Your task to perform on an android device: open chrome and create a bookmark for the current page Image 0: 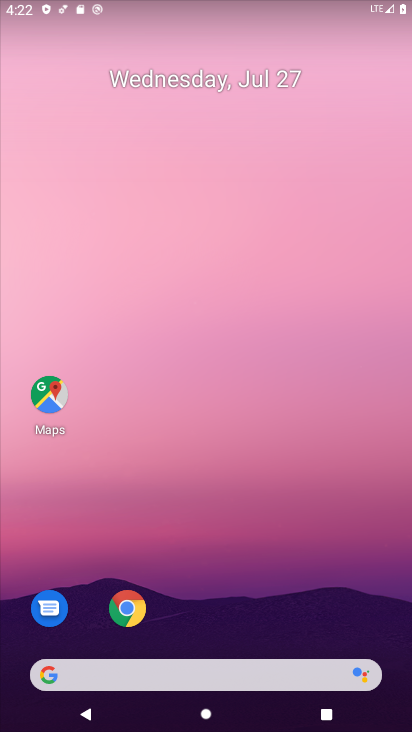
Step 0: drag from (338, 589) to (278, 188)
Your task to perform on an android device: open chrome and create a bookmark for the current page Image 1: 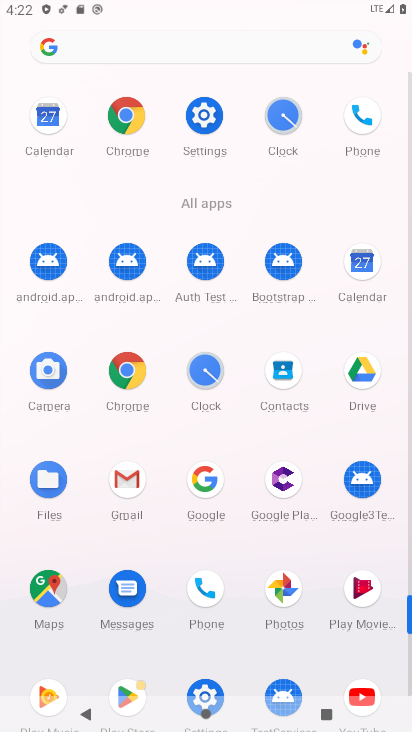
Step 1: click (138, 121)
Your task to perform on an android device: open chrome and create a bookmark for the current page Image 2: 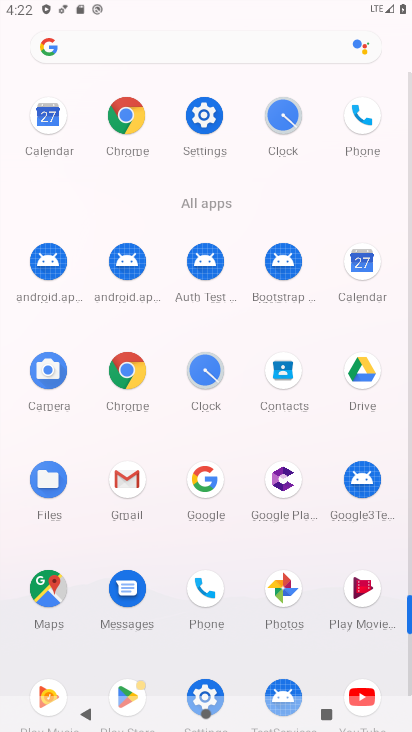
Step 2: click (138, 121)
Your task to perform on an android device: open chrome and create a bookmark for the current page Image 3: 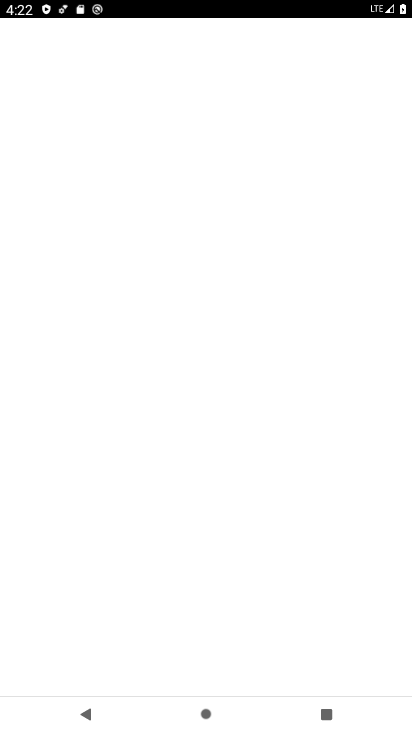
Step 3: click (140, 121)
Your task to perform on an android device: open chrome and create a bookmark for the current page Image 4: 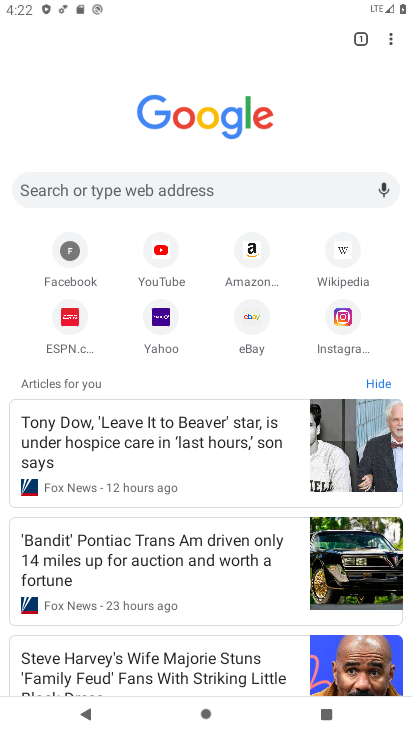
Step 4: drag from (385, 38) to (278, 38)
Your task to perform on an android device: open chrome and create a bookmark for the current page Image 5: 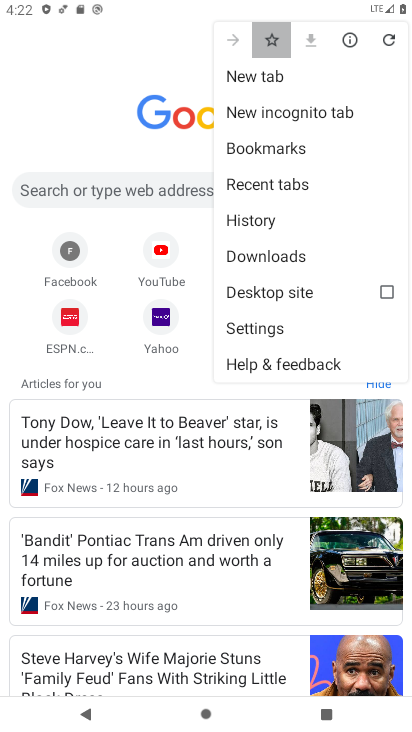
Step 5: click (278, 38)
Your task to perform on an android device: open chrome and create a bookmark for the current page Image 6: 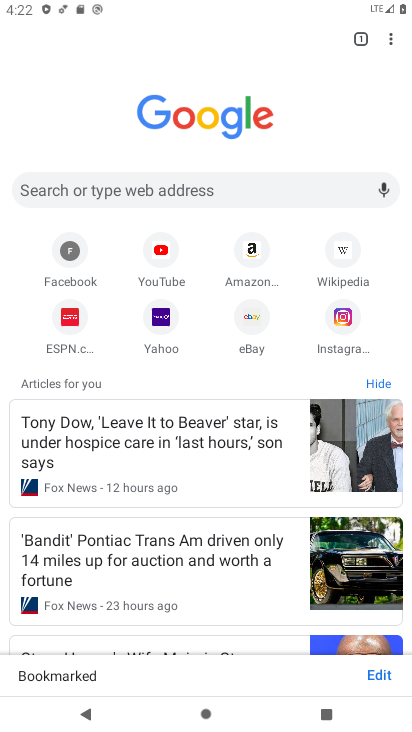
Step 6: task complete